Your task to perform on an android device: open chrome and create a bookmark for the current page Image 0: 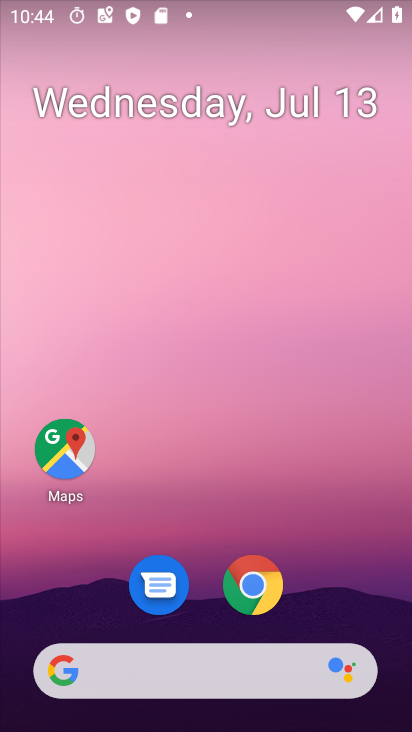
Step 0: click (258, 588)
Your task to perform on an android device: open chrome and create a bookmark for the current page Image 1: 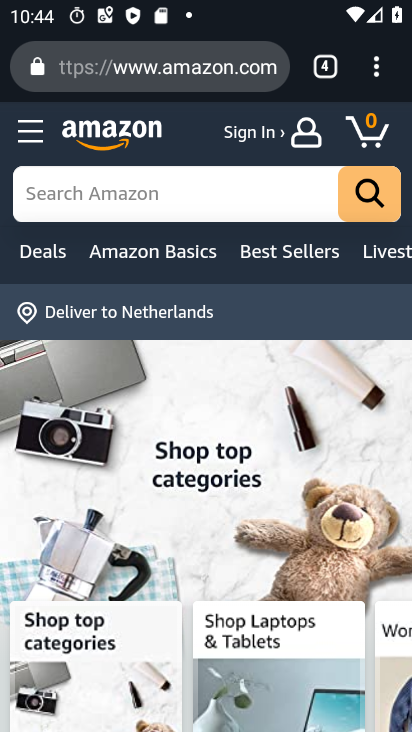
Step 1: click (375, 69)
Your task to perform on an android device: open chrome and create a bookmark for the current page Image 2: 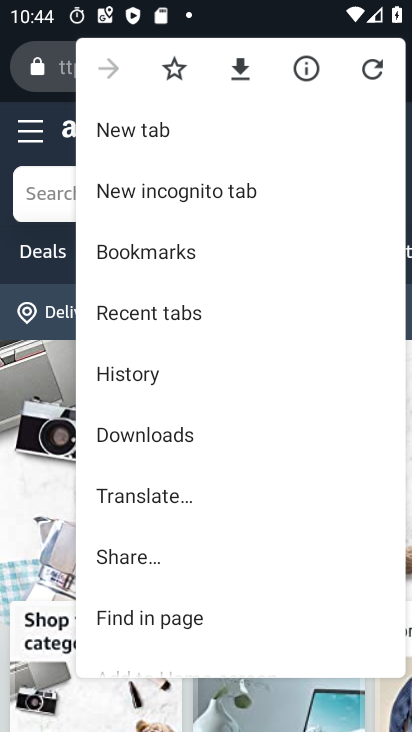
Step 2: click (174, 60)
Your task to perform on an android device: open chrome and create a bookmark for the current page Image 3: 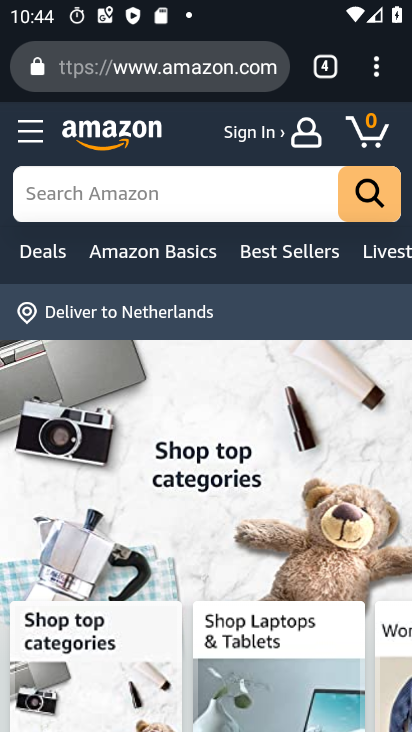
Step 3: task complete